Your task to perform on an android device: set the timer Image 0: 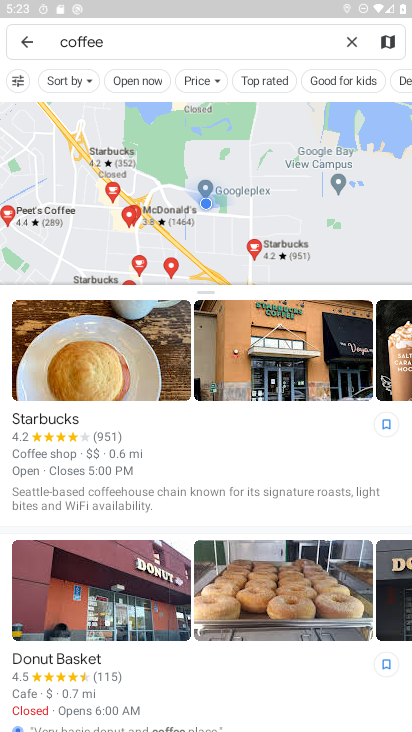
Step 0: press home button
Your task to perform on an android device: set the timer Image 1: 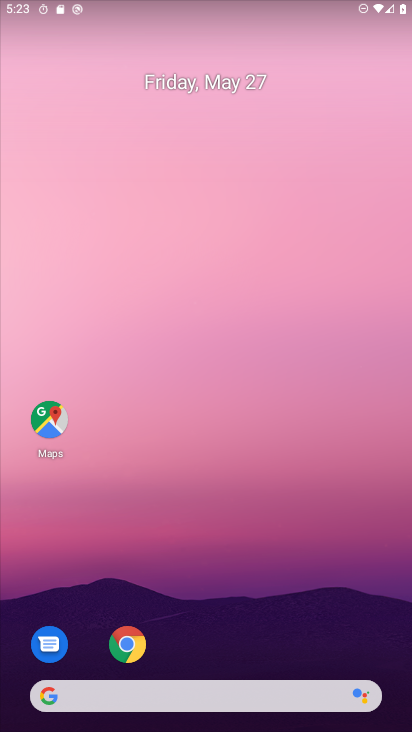
Step 1: drag from (196, 668) to (252, 148)
Your task to perform on an android device: set the timer Image 2: 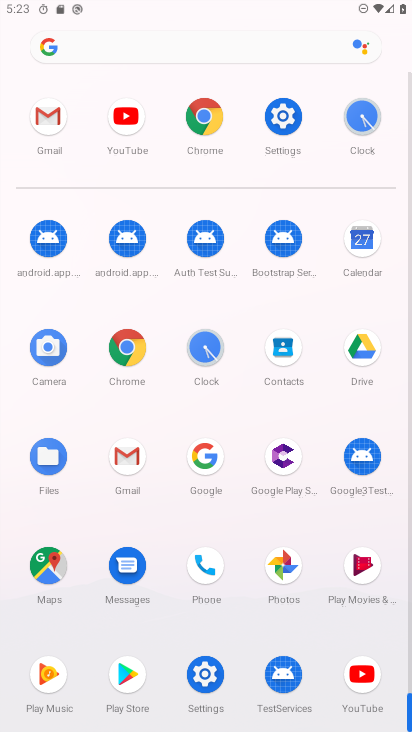
Step 2: click (360, 129)
Your task to perform on an android device: set the timer Image 3: 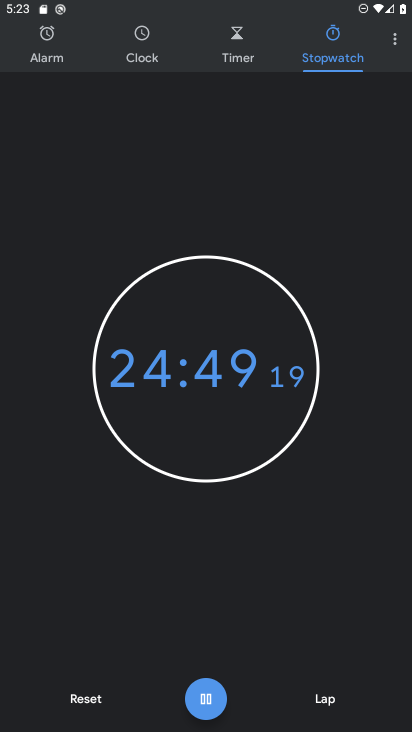
Step 3: click (228, 45)
Your task to perform on an android device: set the timer Image 4: 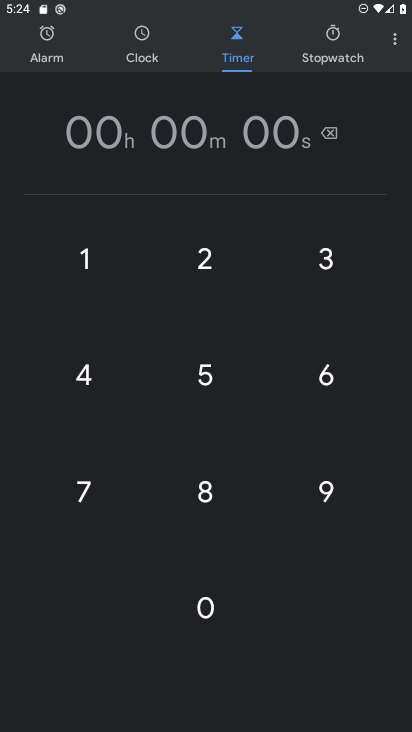
Step 4: click (341, 369)
Your task to perform on an android device: set the timer Image 5: 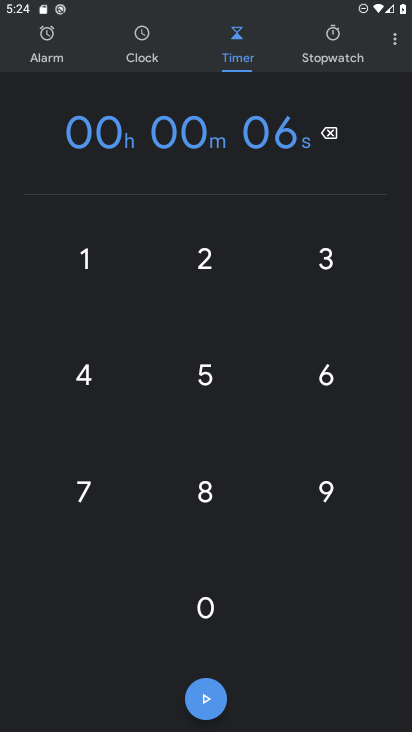
Step 5: click (163, 376)
Your task to perform on an android device: set the timer Image 6: 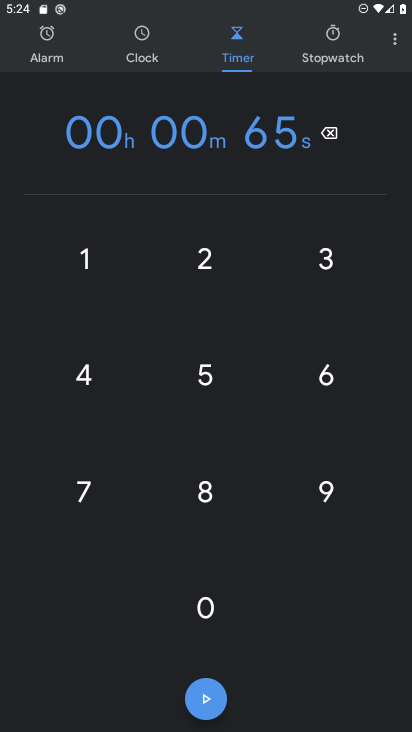
Step 6: click (195, 694)
Your task to perform on an android device: set the timer Image 7: 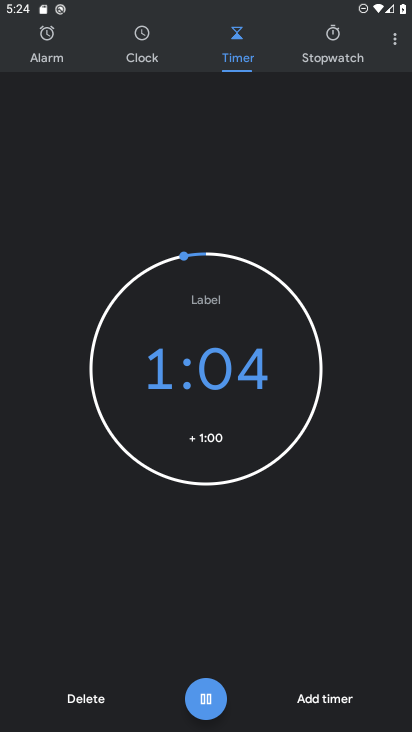
Step 7: task complete